Your task to perform on an android device: When is my next appointment? Image 0: 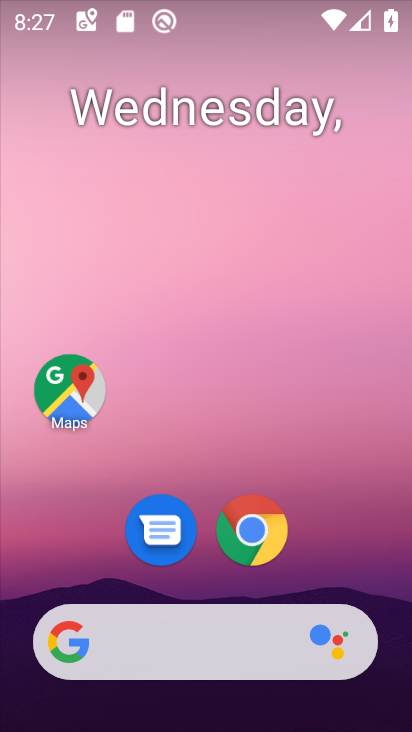
Step 0: drag from (394, 641) to (338, 102)
Your task to perform on an android device: When is my next appointment? Image 1: 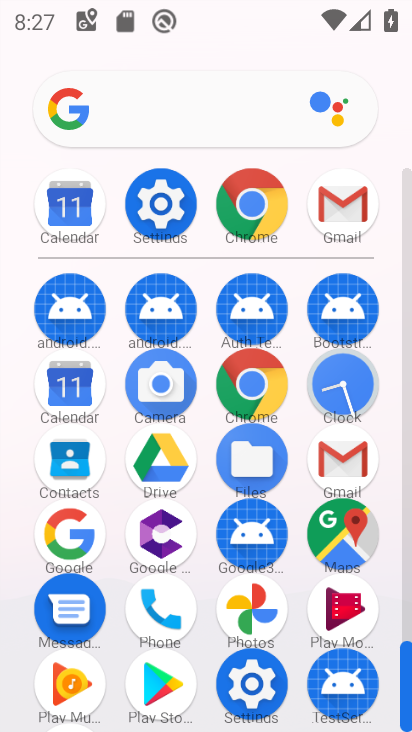
Step 1: click (72, 383)
Your task to perform on an android device: When is my next appointment? Image 2: 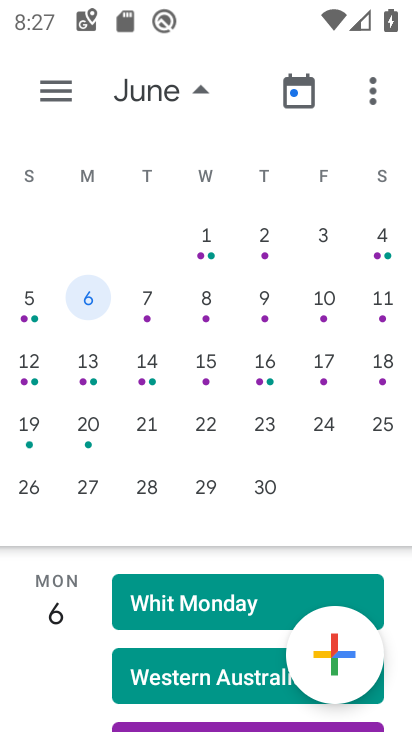
Step 2: click (63, 76)
Your task to perform on an android device: When is my next appointment? Image 3: 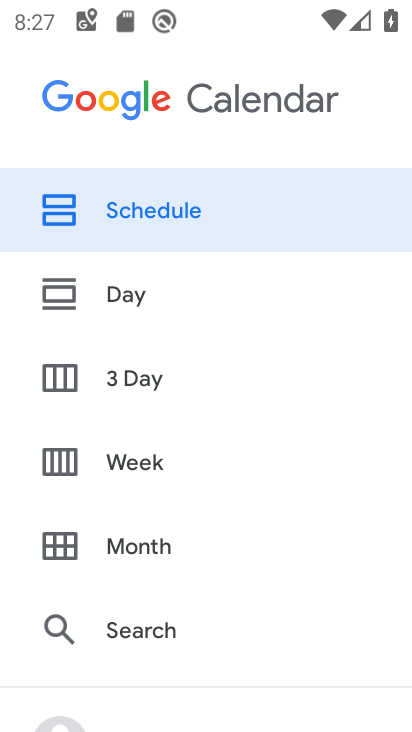
Step 3: click (119, 199)
Your task to perform on an android device: When is my next appointment? Image 4: 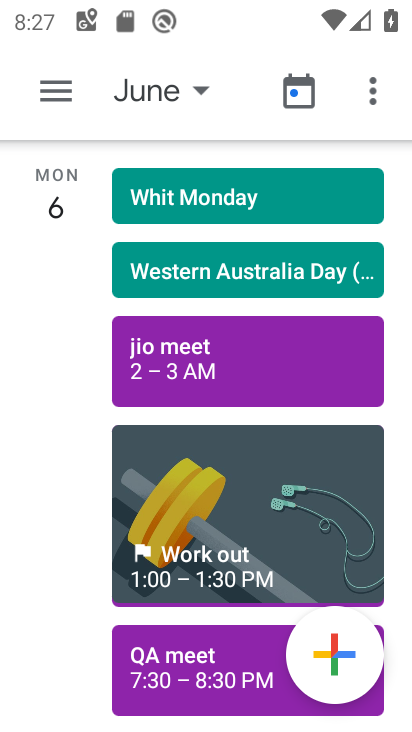
Step 4: task complete